Your task to perform on an android device: turn on data saver in the chrome app Image 0: 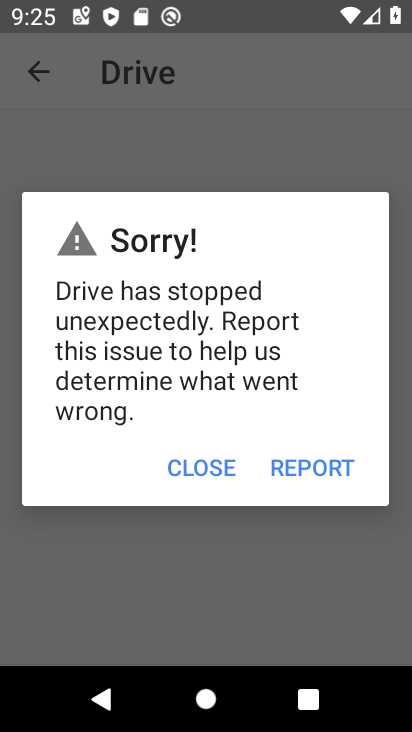
Step 0: press home button
Your task to perform on an android device: turn on data saver in the chrome app Image 1: 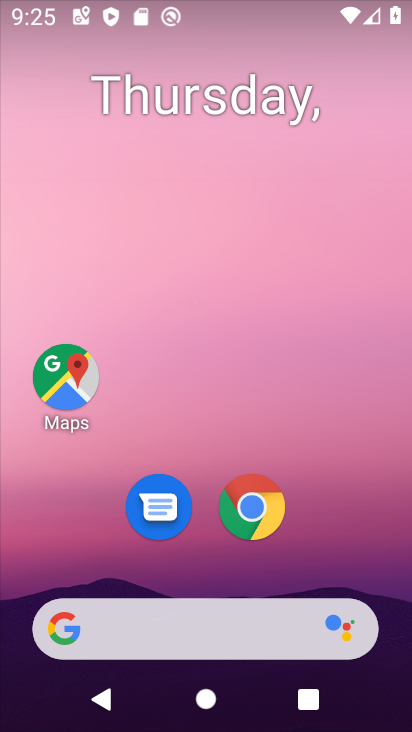
Step 1: click (262, 496)
Your task to perform on an android device: turn on data saver in the chrome app Image 2: 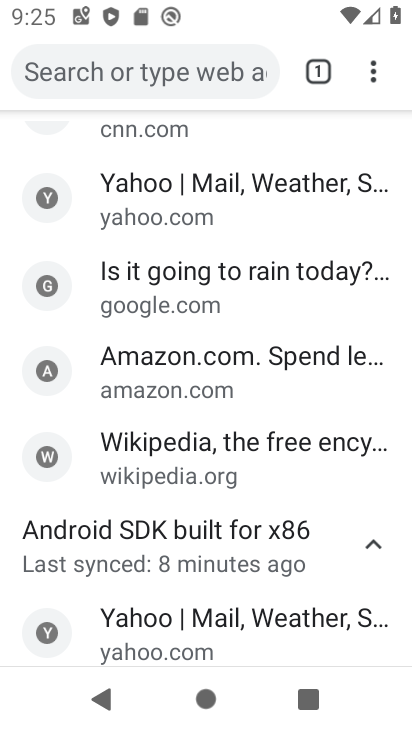
Step 2: click (368, 72)
Your task to perform on an android device: turn on data saver in the chrome app Image 3: 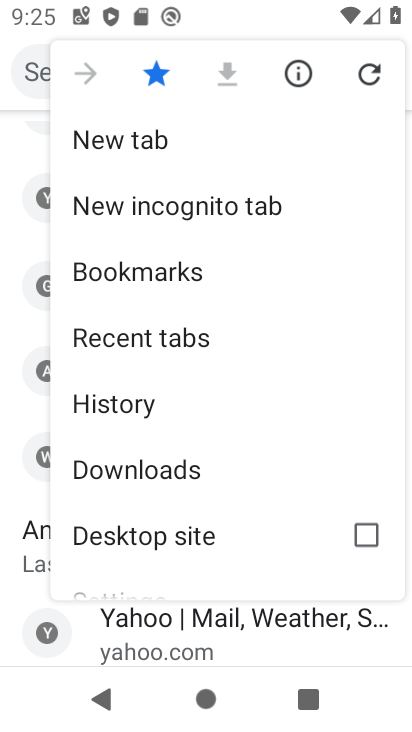
Step 3: drag from (159, 495) to (203, 208)
Your task to perform on an android device: turn on data saver in the chrome app Image 4: 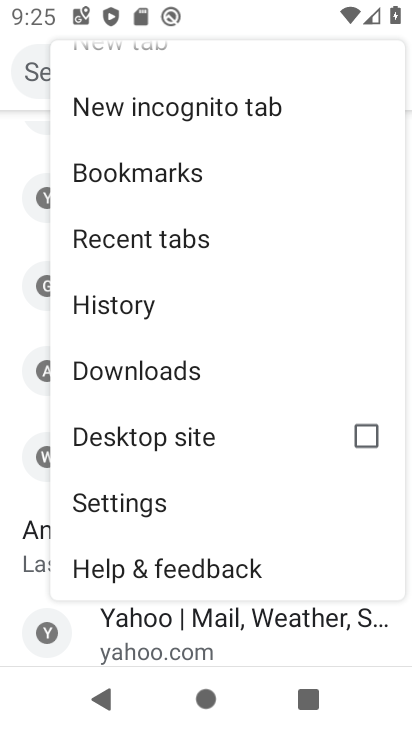
Step 4: click (120, 511)
Your task to perform on an android device: turn on data saver in the chrome app Image 5: 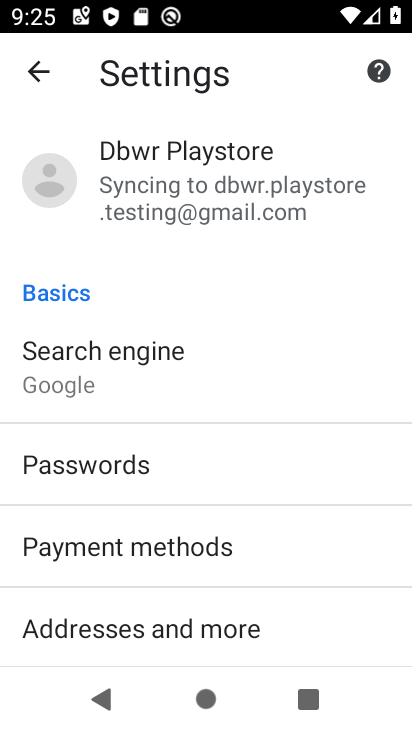
Step 5: drag from (120, 533) to (176, 154)
Your task to perform on an android device: turn on data saver in the chrome app Image 6: 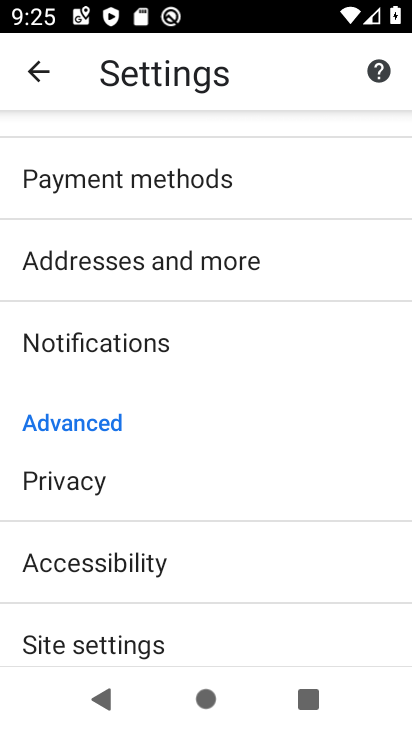
Step 6: drag from (106, 581) to (195, 254)
Your task to perform on an android device: turn on data saver in the chrome app Image 7: 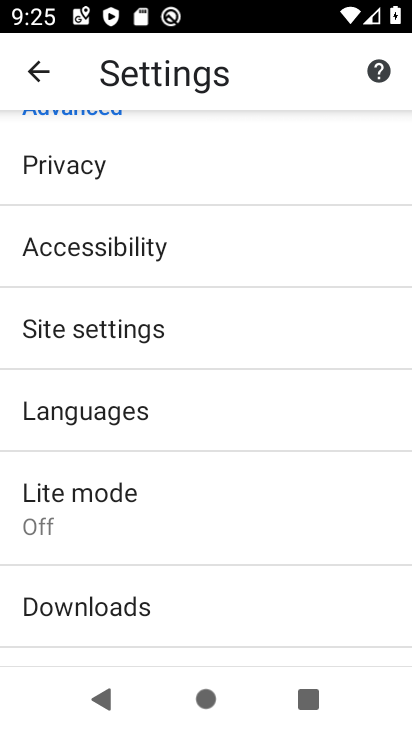
Step 7: click (113, 515)
Your task to perform on an android device: turn on data saver in the chrome app Image 8: 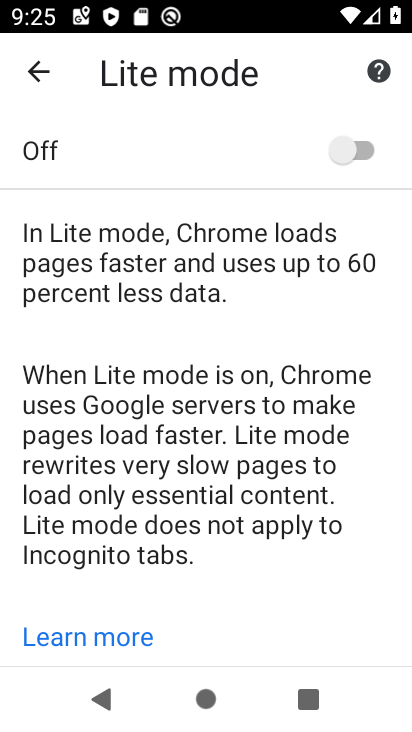
Step 8: click (350, 139)
Your task to perform on an android device: turn on data saver in the chrome app Image 9: 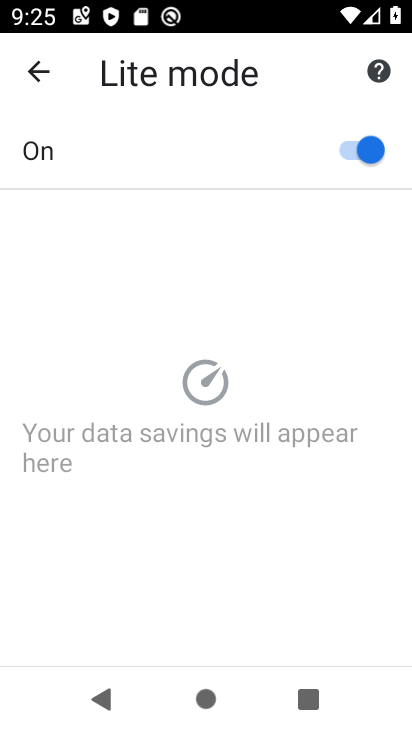
Step 9: task complete